Your task to perform on an android device: Go to calendar. Show me events next week Image 0: 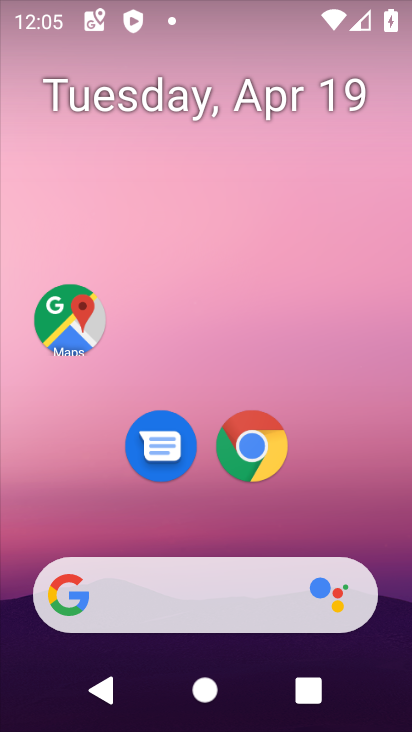
Step 0: drag from (310, 479) to (336, 106)
Your task to perform on an android device: Go to calendar. Show me events next week Image 1: 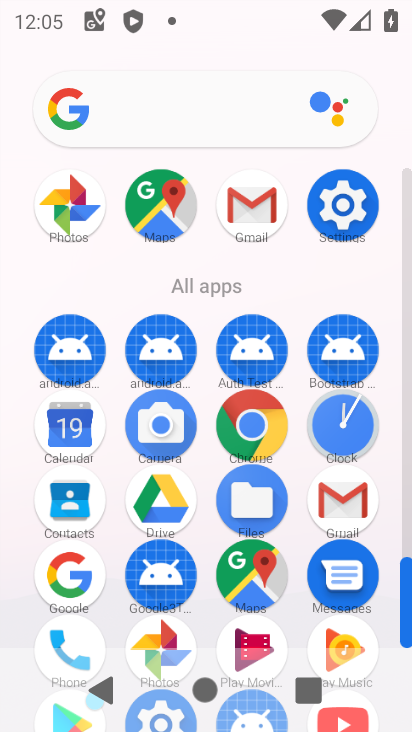
Step 1: click (76, 425)
Your task to perform on an android device: Go to calendar. Show me events next week Image 2: 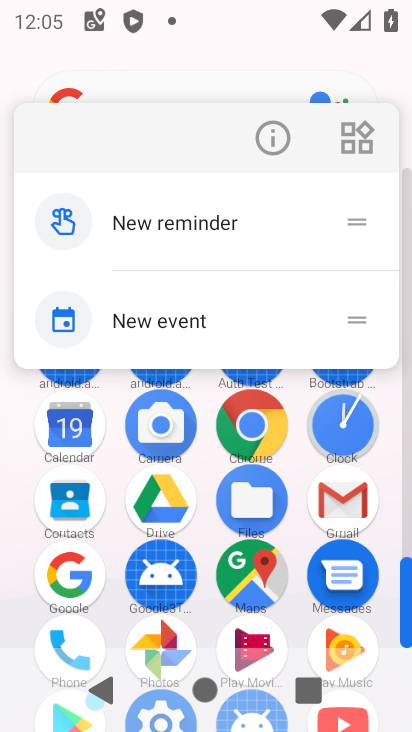
Step 2: click (76, 425)
Your task to perform on an android device: Go to calendar. Show me events next week Image 3: 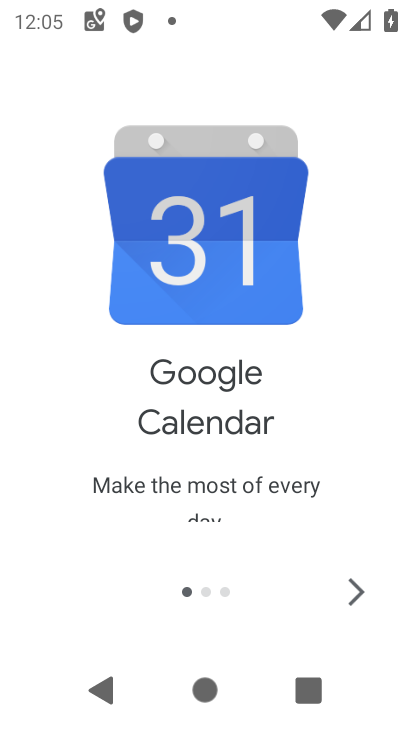
Step 3: click (349, 584)
Your task to perform on an android device: Go to calendar. Show me events next week Image 4: 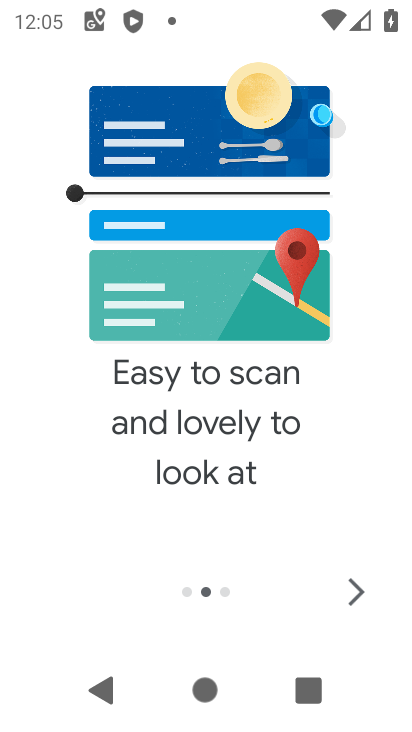
Step 4: click (350, 584)
Your task to perform on an android device: Go to calendar. Show me events next week Image 5: 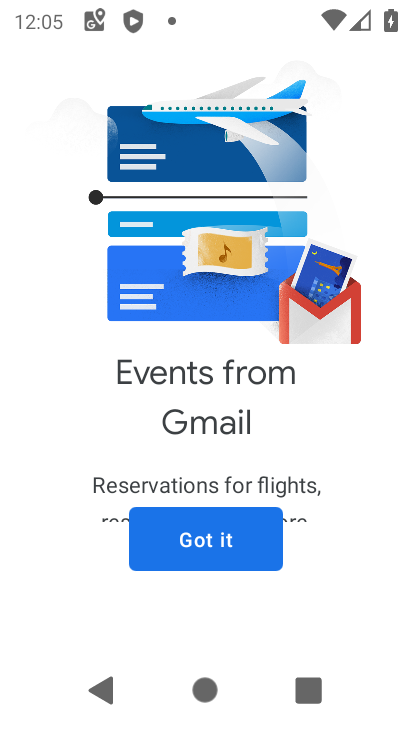
Step 5: click (260, 520)
Your task to perform on an android device: Go to calendar. Show me events next week Image 6: 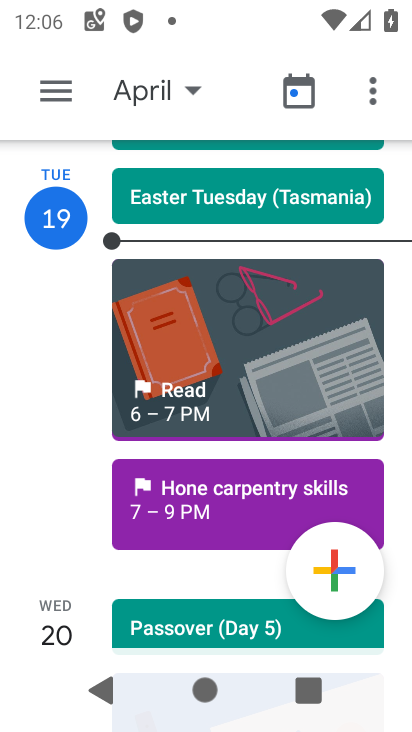
Step 6: click (50, 79)
Your task to perform on an android device: Go to calendar. Show me events next week Image 7: 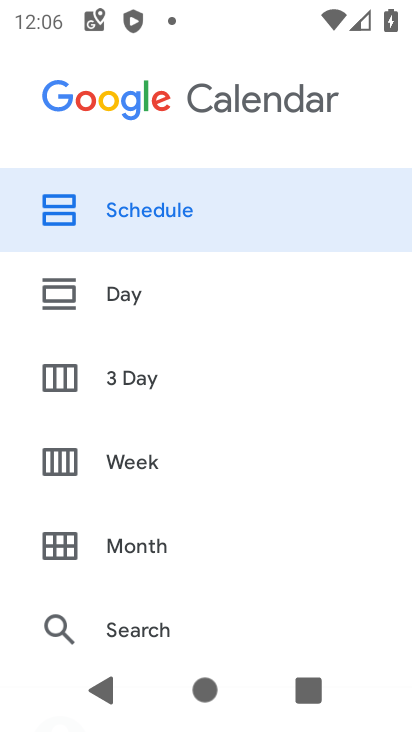
Step 7: click (113, 459)
Your task to perform on an android device: Go to calendar. Show me events next week Image 8: 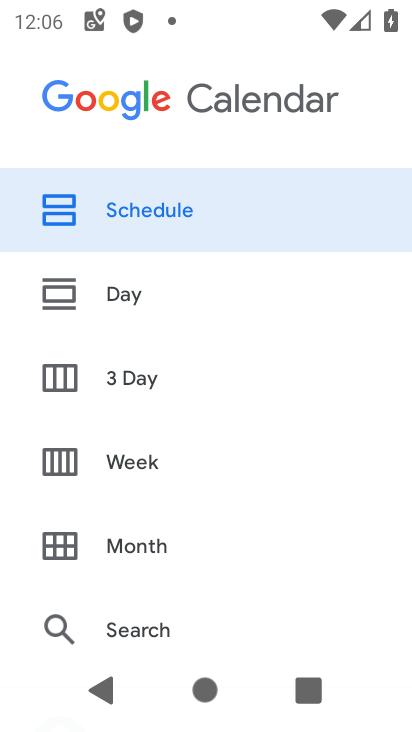
Step 8: click (61, 453)
Your task to perform on an android device: Go to calendar. Show me events next week Image 9: 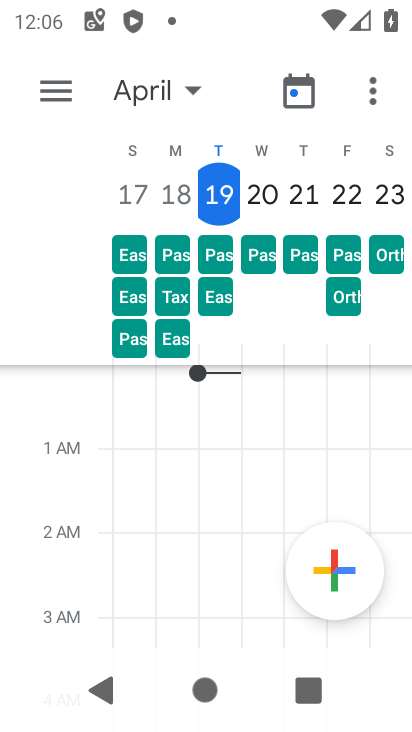
Step 9: task complete